Your task to perform on an android device: Go to internet settings Image 0: 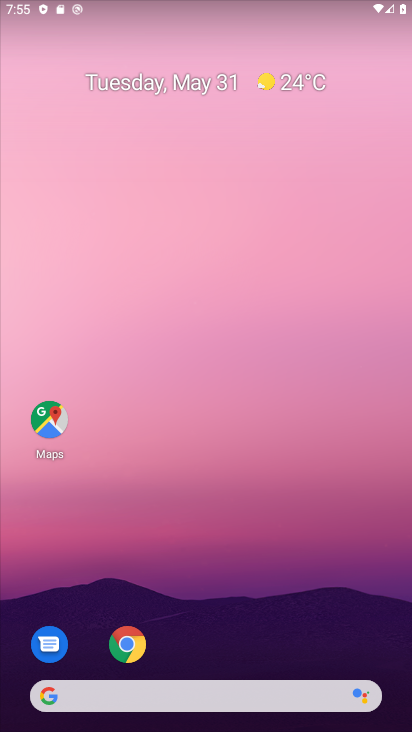
Step 0: drag from (374, 567) to (366, 60)
Your task to perform on an android device: Go to internet settings Image 1: 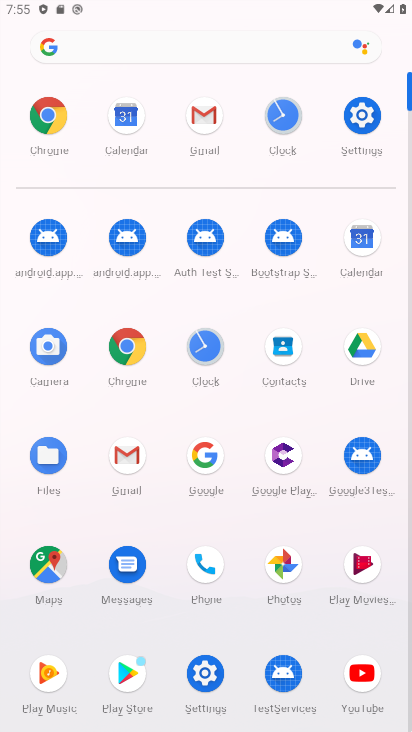
Step 1: click (377, 123)
Your task to perform on an android device: Go to internet settings Image 2: 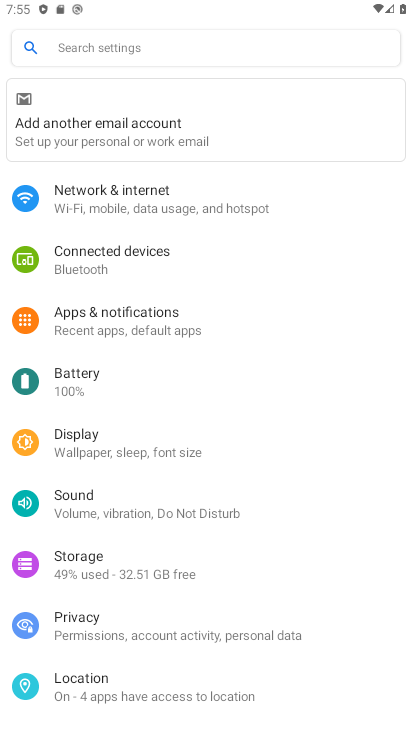
Step 2: click (193, 193)
Your task to perform on an android device: Go to internet settings Image 3: 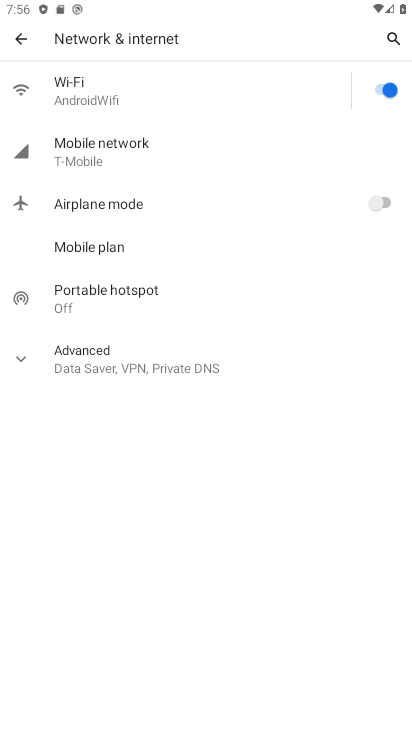
Step 3: task complete